Your task to perform on an android device: Go to Google maps Image 0: 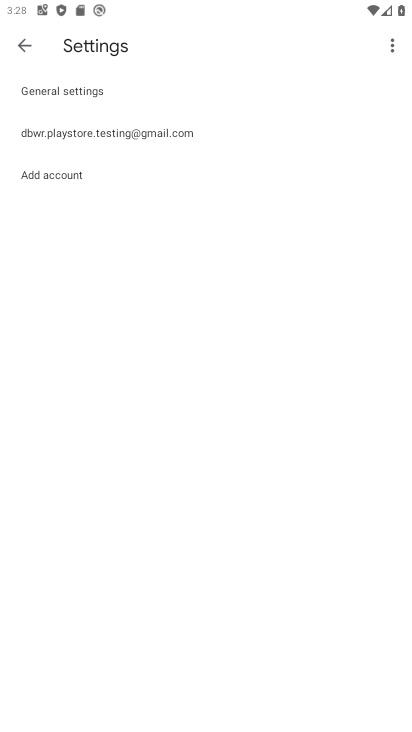
Step 0: press back button
Your task to perform on an android device: Go to Google maps Image 1: 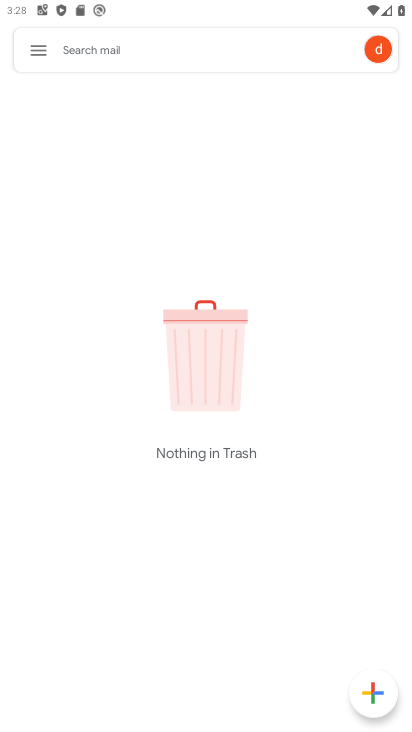
Step 1: press back button
Your task to perform on an android device: Go to Google maps Image 2: 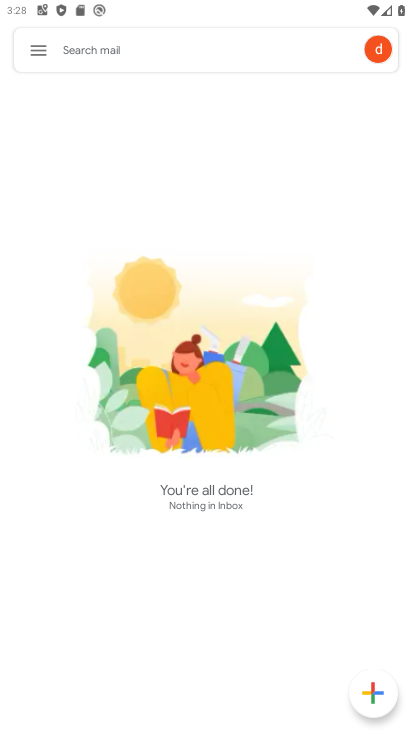
Step 2: press back button
Your task to perform on an android device: Go to Google maps Image 3: 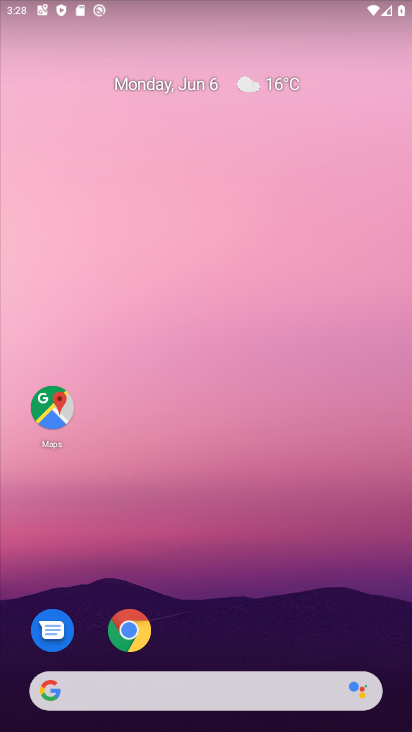
Step 3: click (53, 402)
Your task to perform on an android device: Go to Google maps Image 4: 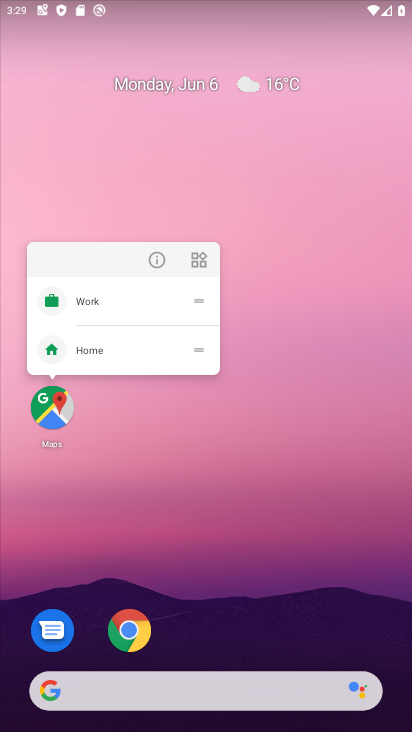
Step 4: click (53, 402)
Your task to perform on an android device: Go to Google maps Image 5: 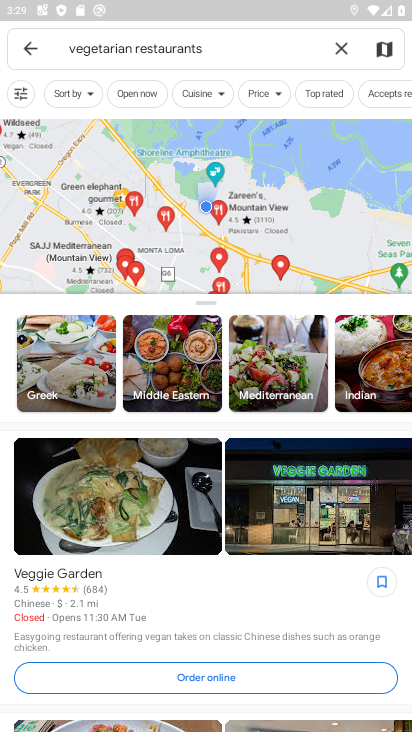
Step 5: task complete